Your task to perform on an android device: open app "Adobe Acrobat Reader" Image 0: 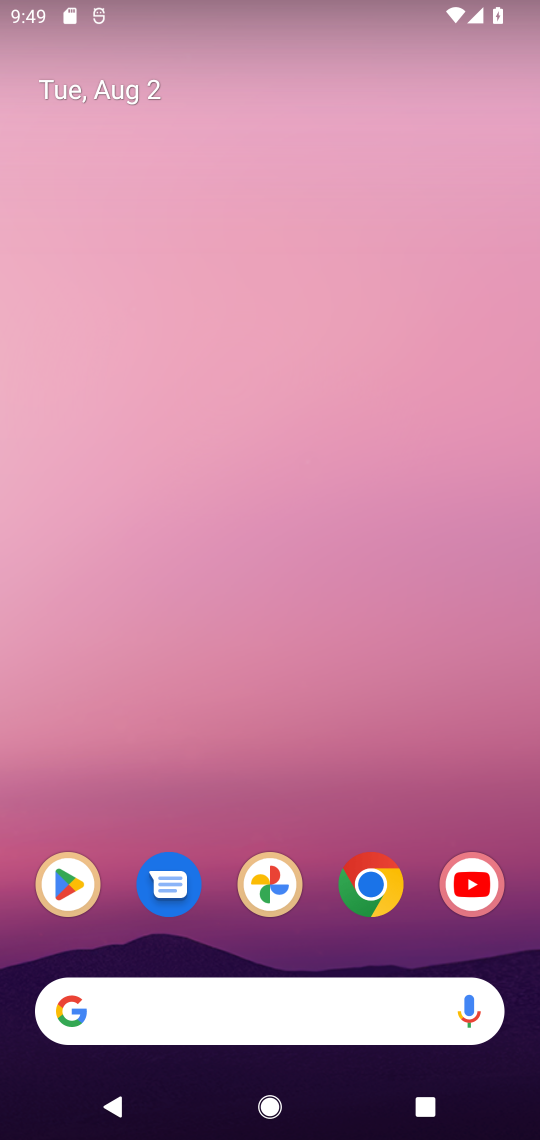
Step 0: click (61, 881)
Your task to perform on an android device: open app "Adobe Acrobat Reader" Image 1: 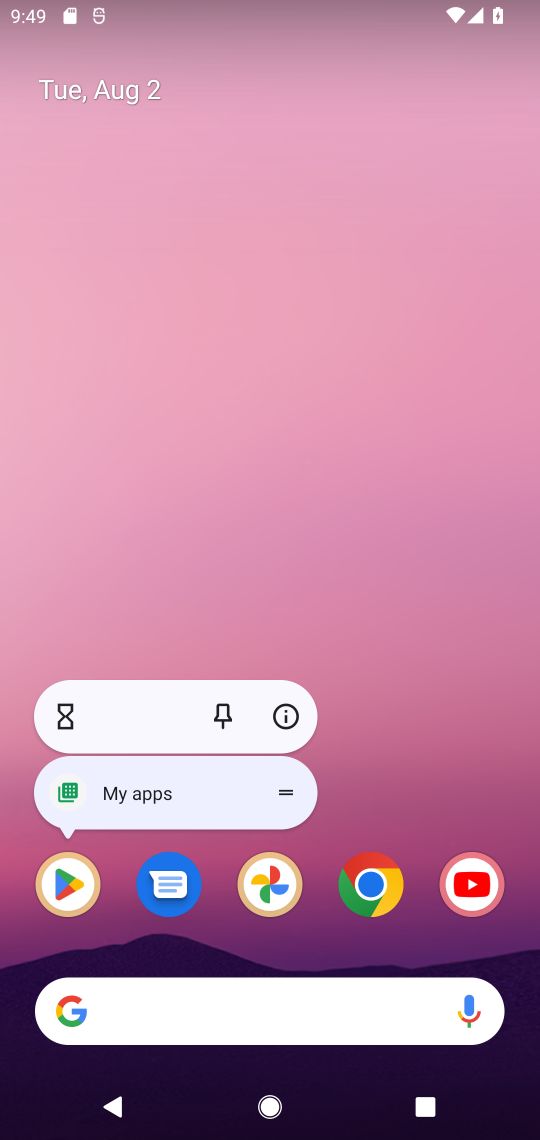
Step 1: click (64, 893)
Your task to perform on an android device: open app "Adobe Acrobat Reader" Image 2: 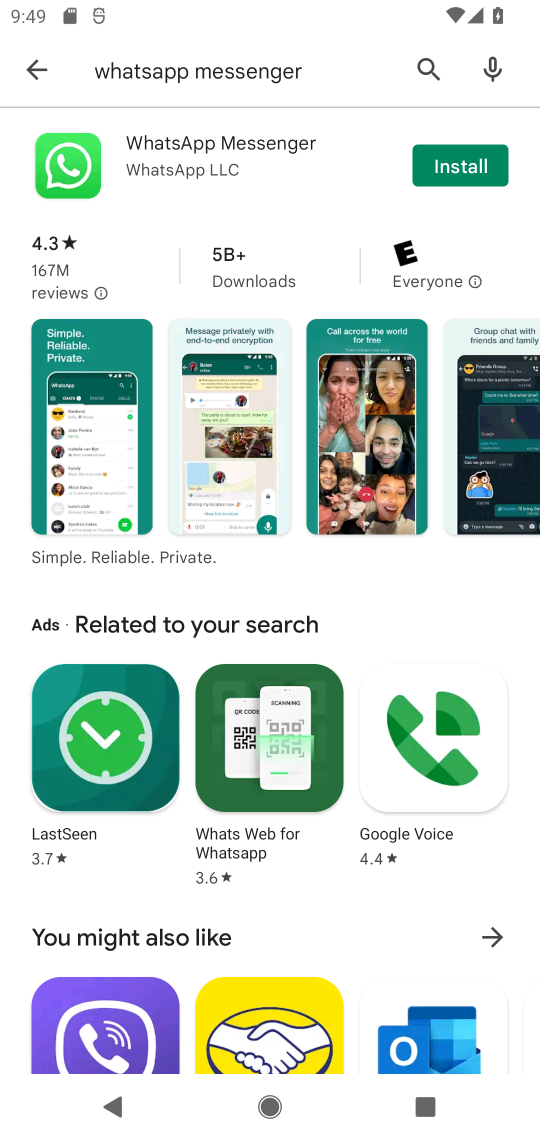
Step 2: click (251, 61)
Your task to perform on an android device: open app "Adobe Acrobat Reader" Image 3: 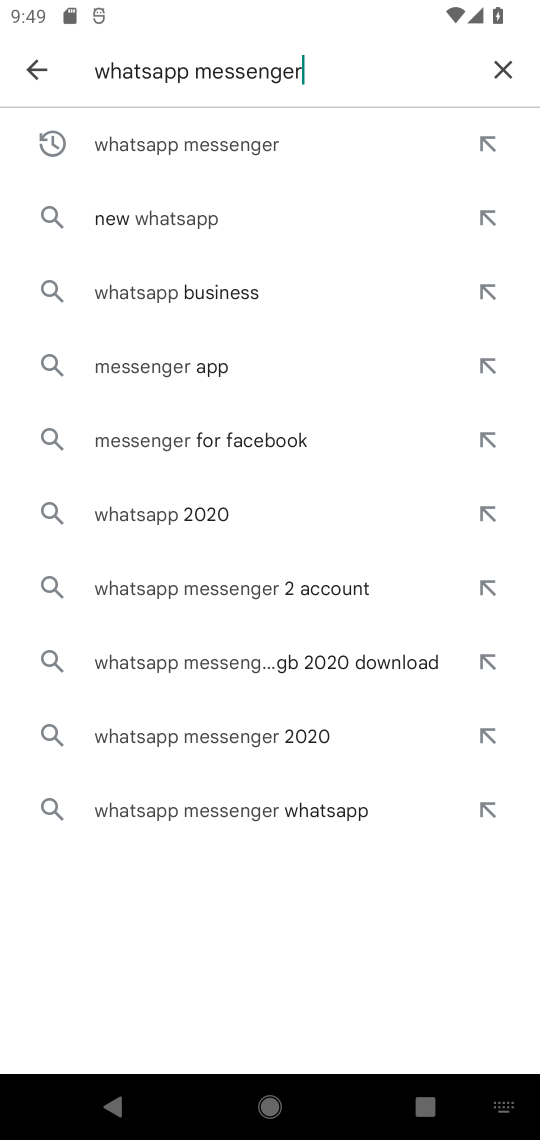
Step 3: click (502, 57)
Your task to perform on an android device: open app "Adobe Acrobat Reader" Image 4: 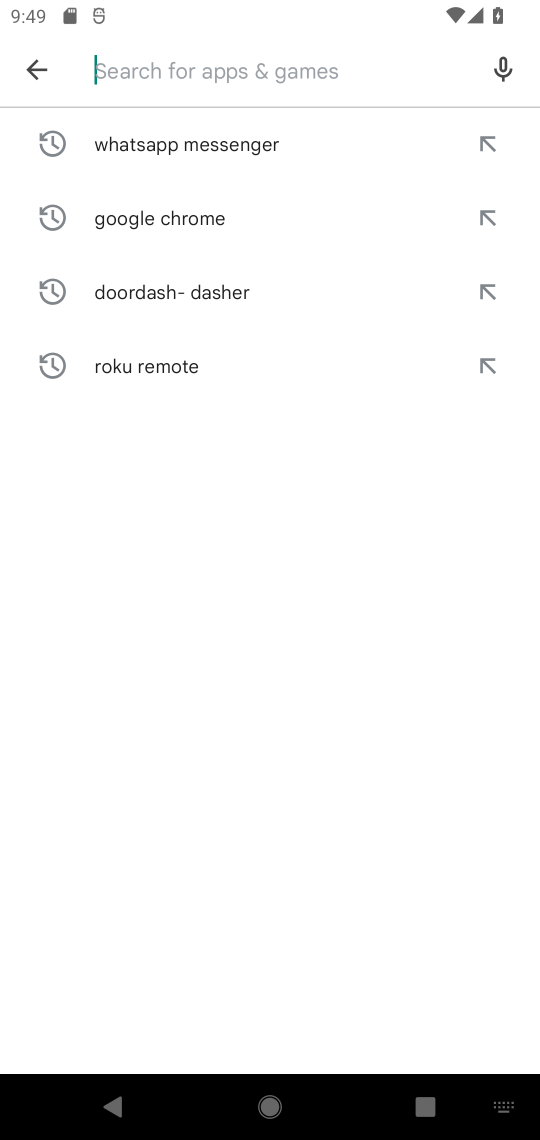
Step 4: type "Adobe Acrobat Reader"
Your task to perform on an android device: open app "Adobe Acrobat Reader" Image 5: 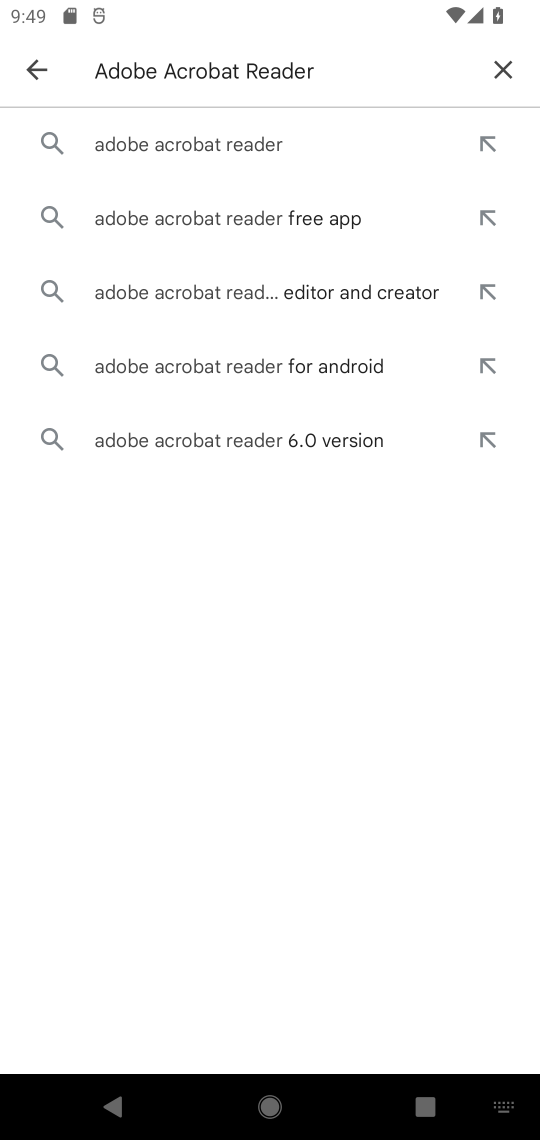
Step 5: click (227, 159)
Your task to perform on an android device: open app "Adobe Acrobat Reader" Image 6: 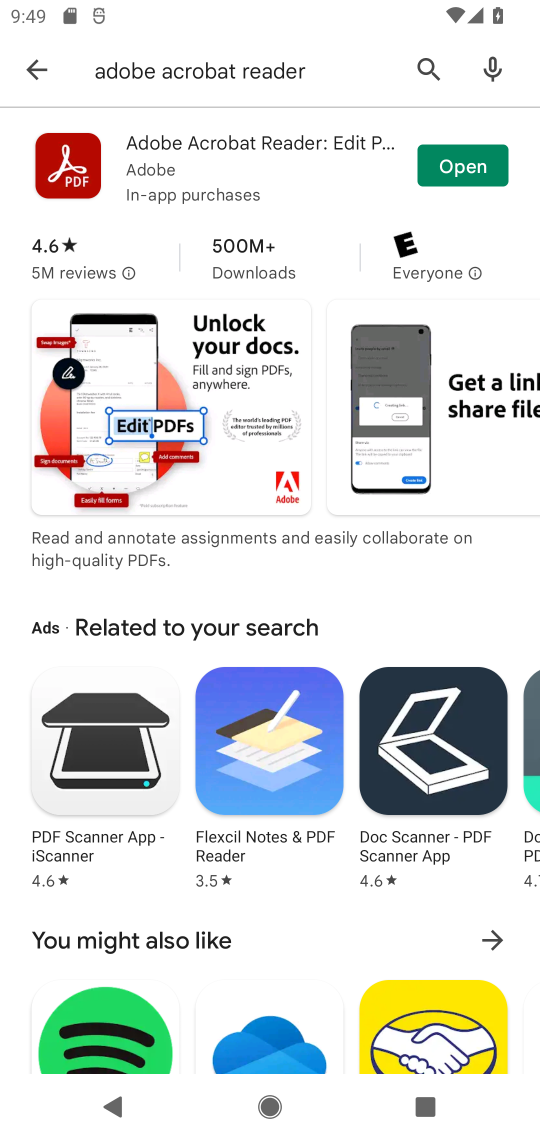
Step 6: click (475, 160)
Your task to perform on an android device: open app "Adobe Acrobat Reader" Image 7: 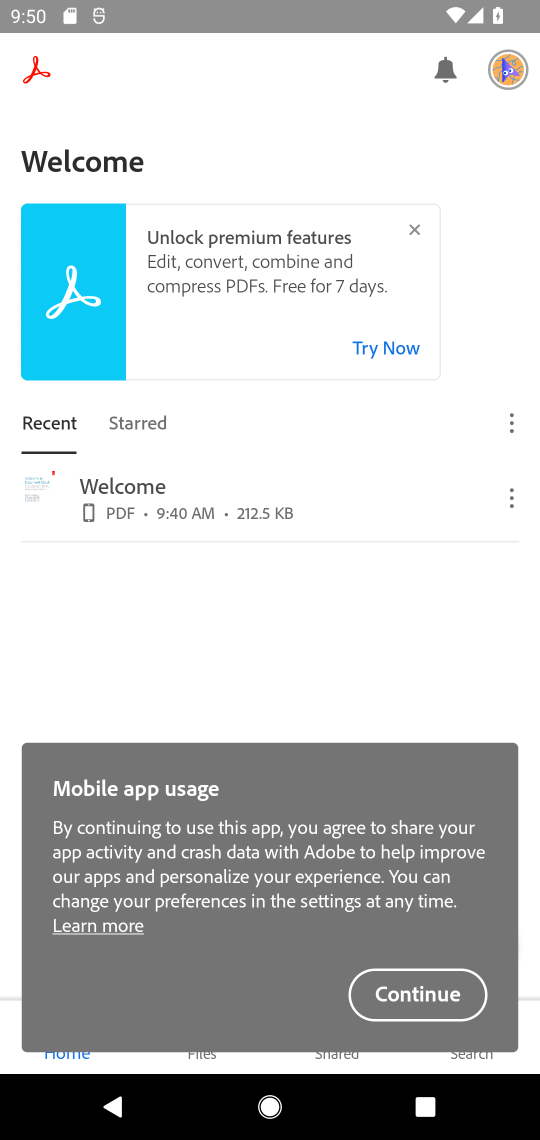
Step 7: click (366, 1020)
Your task to perform on an android device: open app "Adobe Acrobat Reader" Image 8: 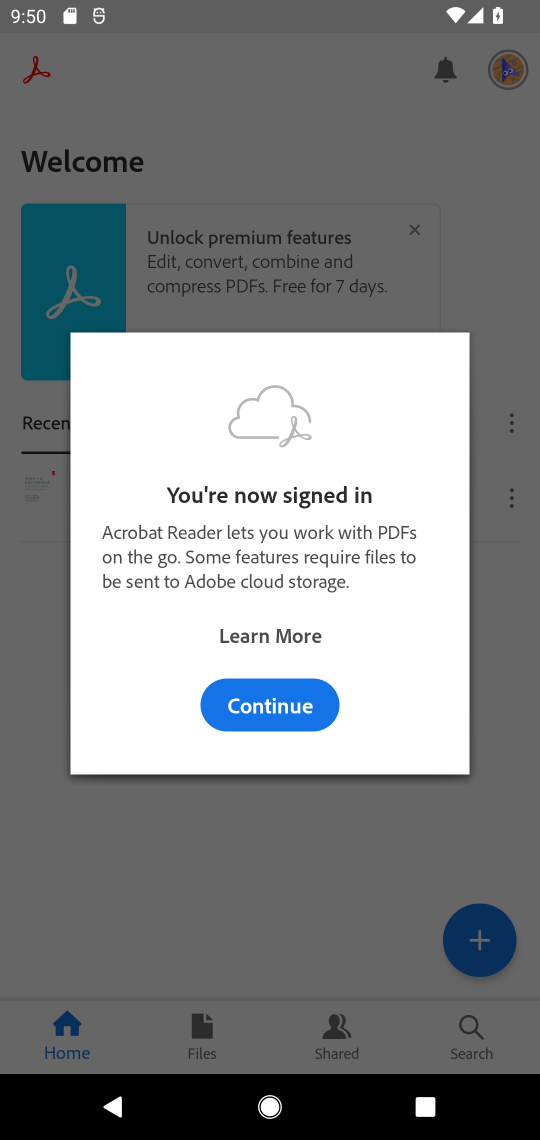
Step 8: task complete